Your task to perform on an android device: Open CNN.com Image 0: 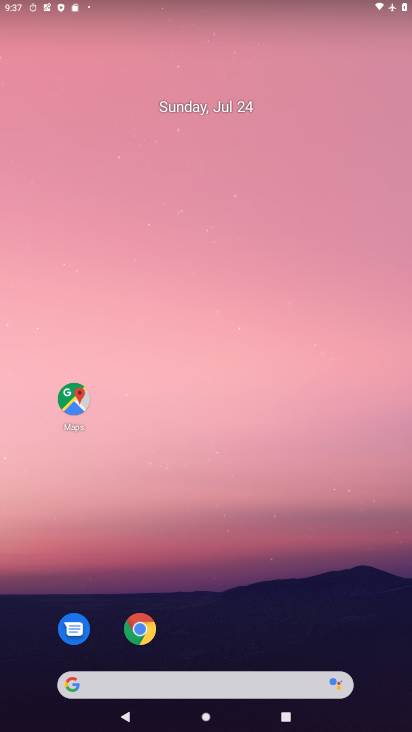
Step 0: drag from (242, 605) to (217, 3)
Your task to perform on an android device: Open CNN.com Image 1: 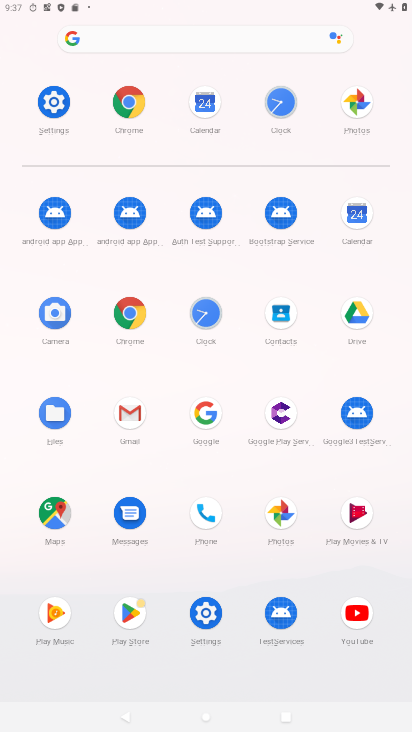
Step 1: click (139, 325)
Your task to perform on an android device: Open CNN.com Image 2: 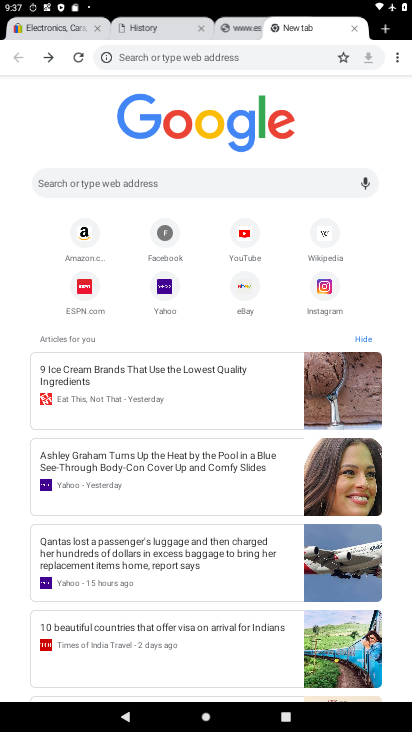
Step 2: click (137, 181)
Your task to perform on an android device: Open CNN.com Image 3: 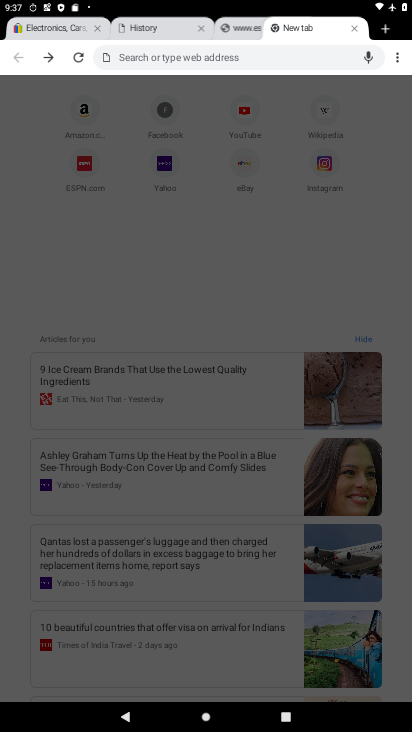
Step 3: type "cnn"
Your task to perform on an android device: Open CNN.com Image 4: 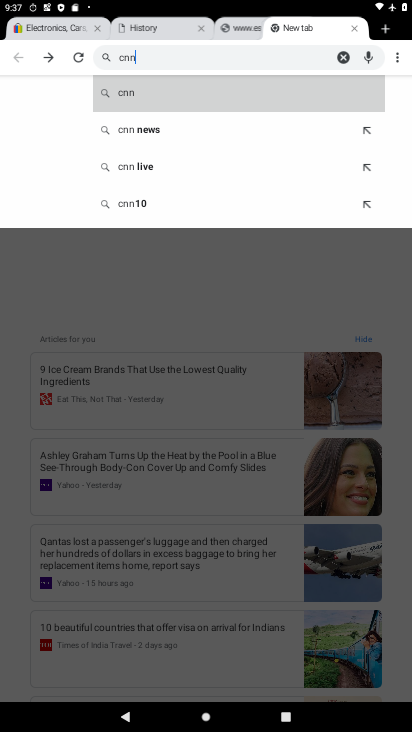
Step 4: click (149, 95)
Your task to perform on an android device: Open CNN.com Image 5: 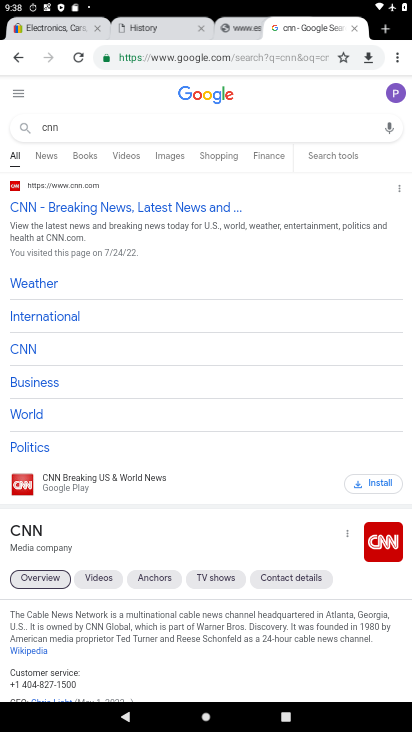
Step 5: click (98, 203)
Your task to perform on an android device: Open CNN.com Image 6: 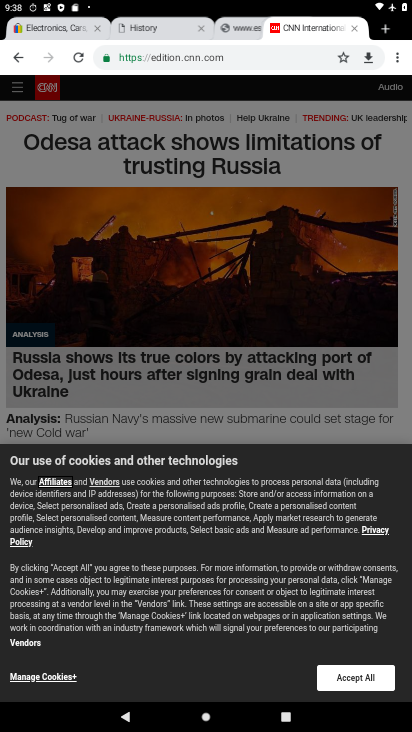
Step 6: task complete